Your task to perform on an android device: delete the emails in spam in the gmail app Image 0: 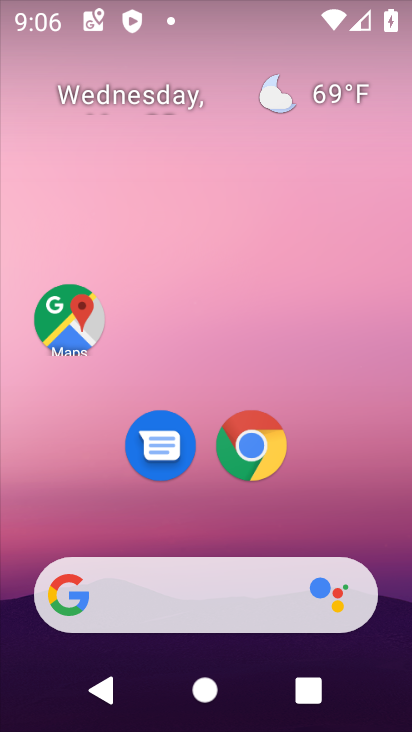
Step 0: drag from (290, 508) to (292, 96)
Your task to perform on an android device: delete the emails in spam in the gmail app Image 1: 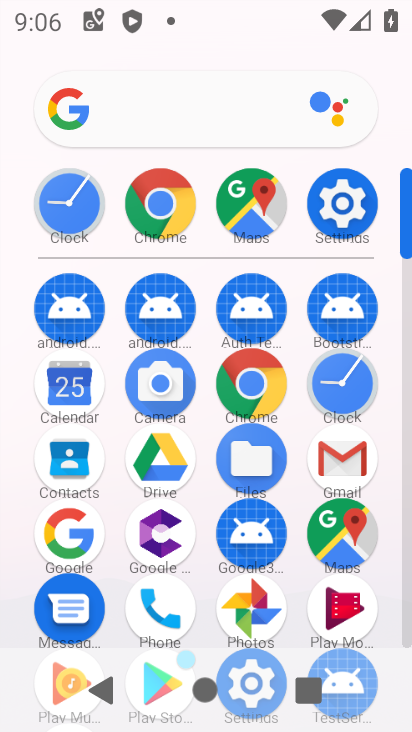
Step 1: click (350, 457)
Your task to perform on an android device: delete the emails in spam in the gmail app Image 2: 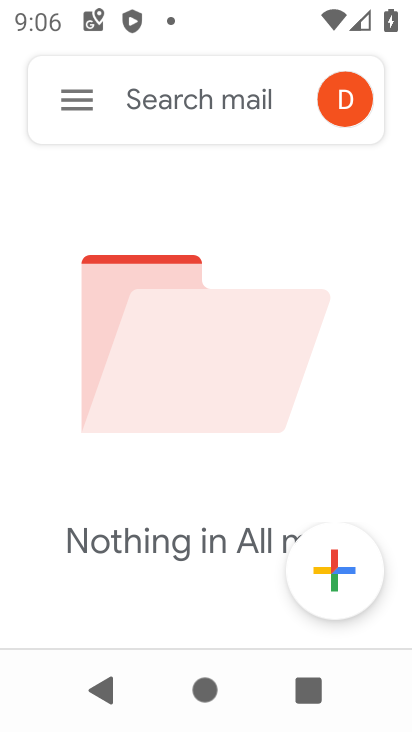
Step 2: click (75, 96)
Your task to perform on an android device: delete the emails in spam in the gmail app Image 3: 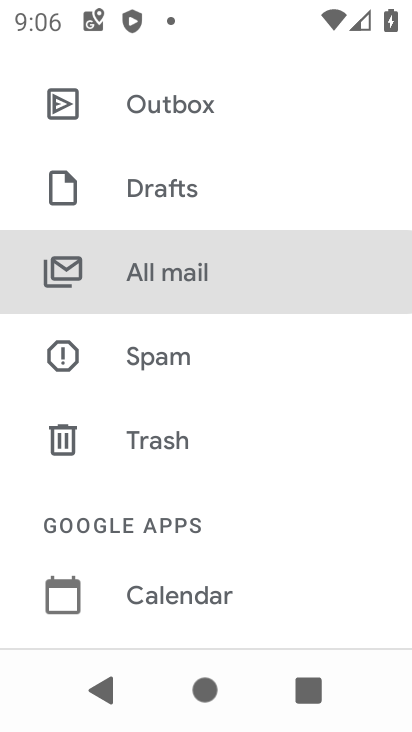
Step 3: drag from (242, 122) to (198, 612)
Your task to perform on an android device: delete the emails in spam in the gmail app Image 4: 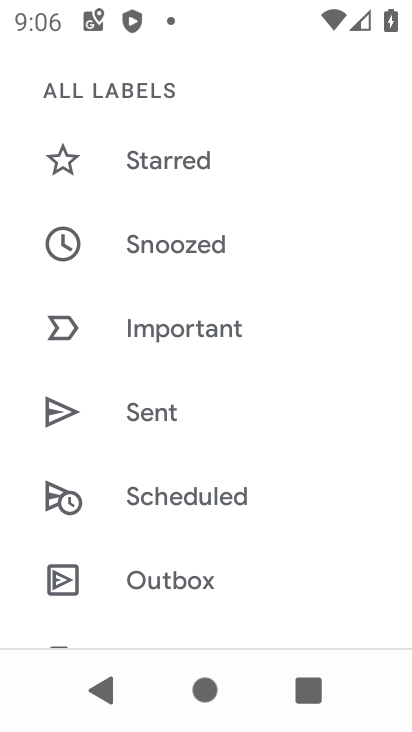
Step 4: drag from (234, 95) to (212, 611)
Your task to perform on an android device: delete the emails in spam in the gmail app Image 5: 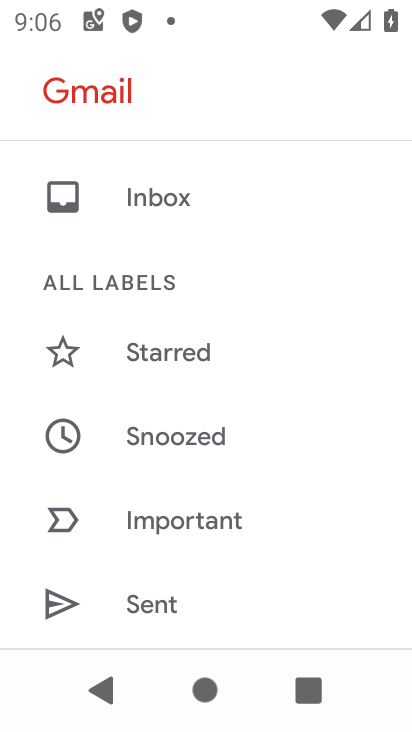
Step 5: click (146, 203)
Your task to perform on an android device: delete the emails in spam in the gmail app Image 6: 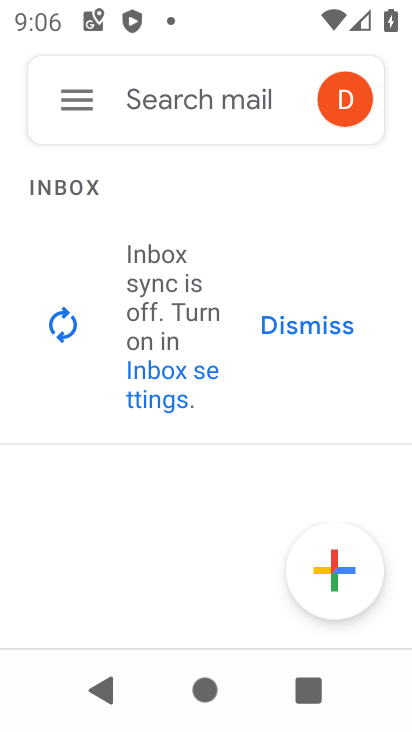
Step 6: click (69, 96)
Your task to perform on an android device: delete the emails in spam in the gmail app Image 7: 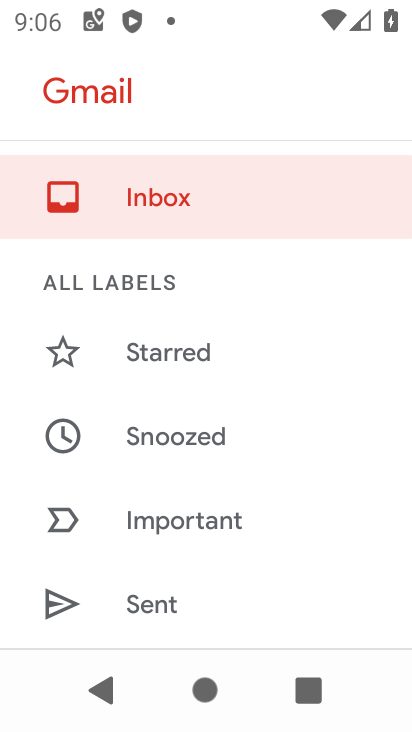
Step 7: drag from (266, 572) to (217, 115)
Your task to perform on an android device: delete the emails in spam in the gmail app Image 8: 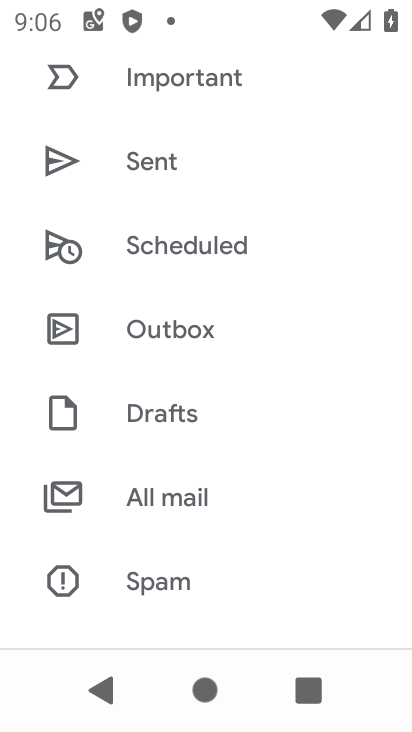
Step 8: click (172, 567)
Your task to perform on an android device: delete the emails in spam in the gmail app Image 9: 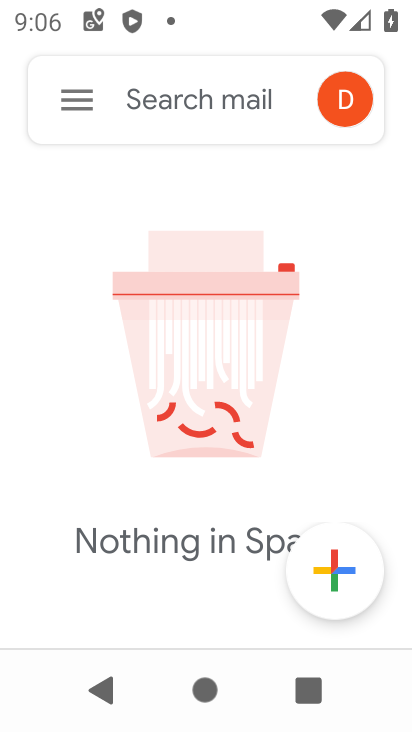
Step 9: task complete